Your task to perform on an android device: open a new tab in the chrome app Image 0: 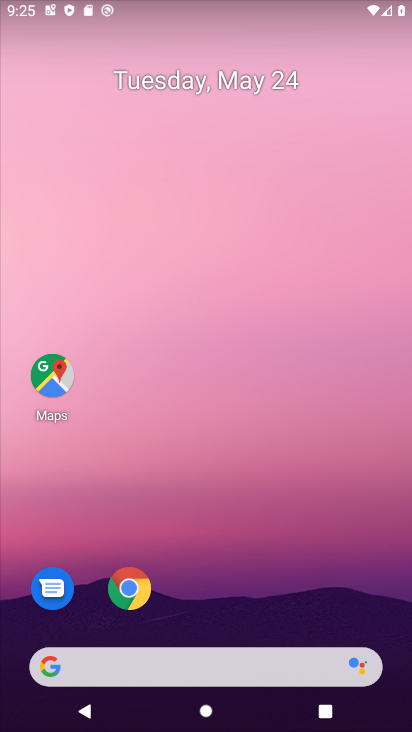
Step 0: click (122, 582)
Your task to perform on an android device: open a new tab in the chrome app Image 1: 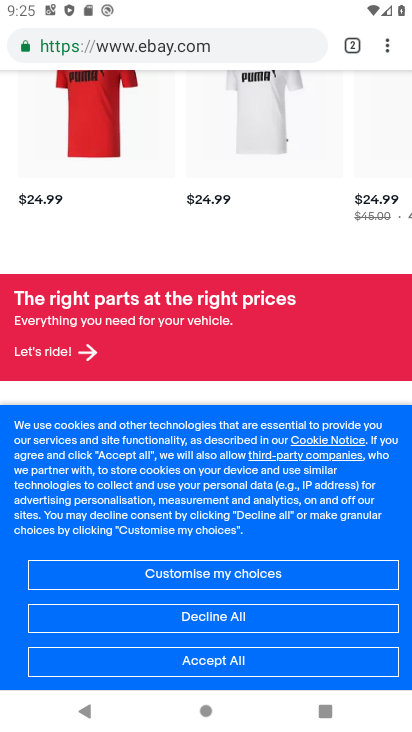
Step 1: click (343, 38)
Your task to perform on an android device: open a new tab in the chrome app Image 2: 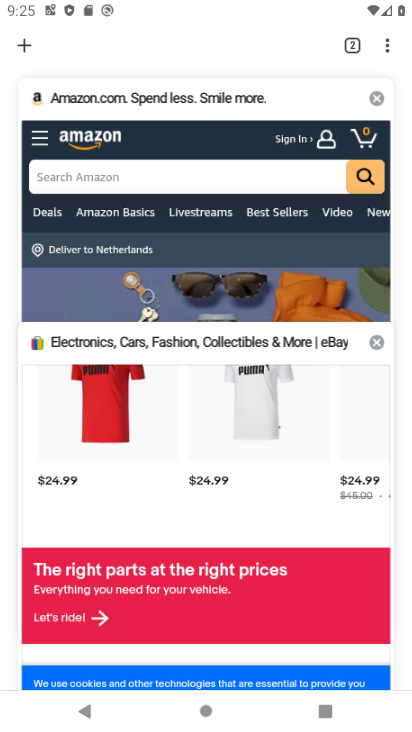
Step 2: click (30, 42)
Your task to perform on an android device: open a new tab in the chrome app Image 3: 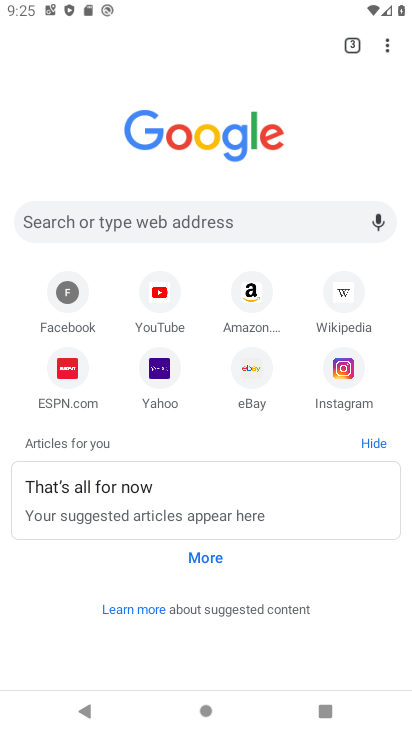
Step 3: task complete